Your task to perform on an android device: Go to Google maps Image 0: 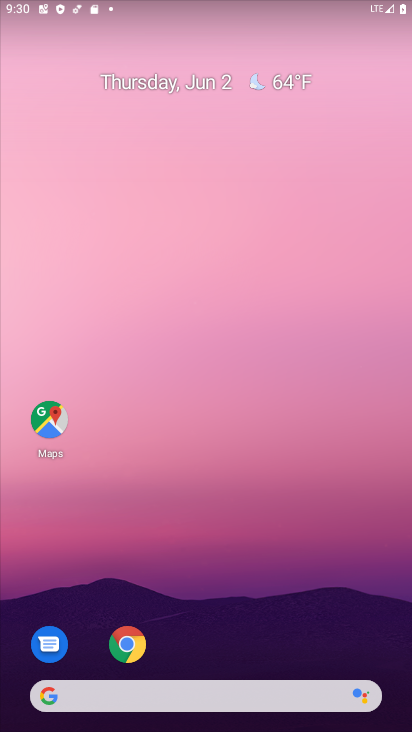
Step 0: press home button
Your task to perform on an android device: Go to Google maps Image 1: 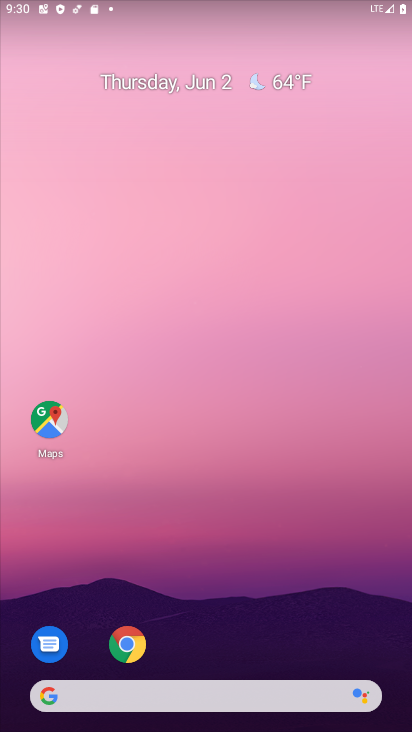
Step 1: click (54, 413)
Your task to perform on an android device: Go to Google maps Image 2: 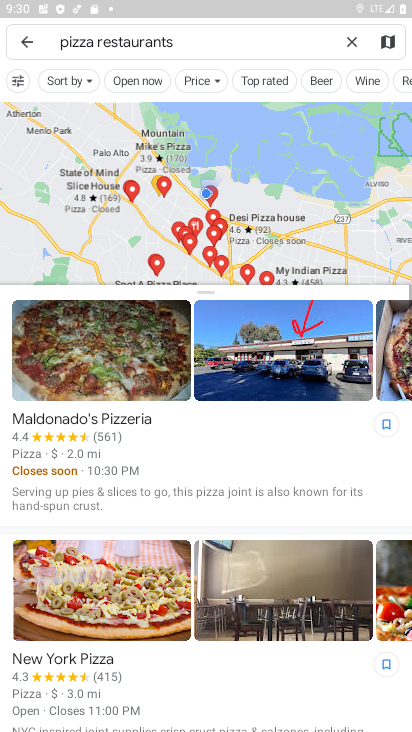
Step 2: task complete